Your task to perform on an android device: Show me popular games on the Play Store Image 0: 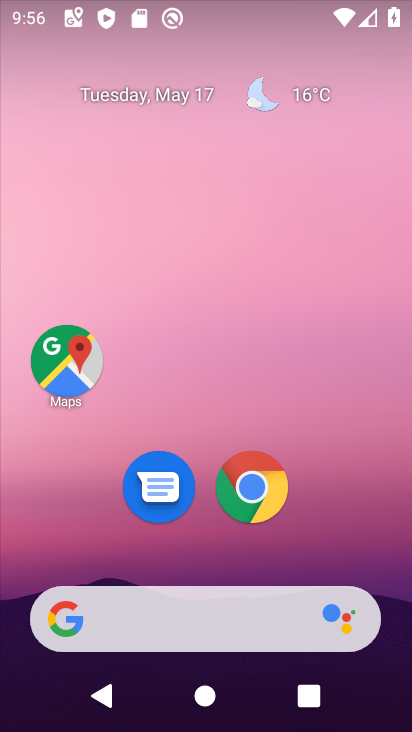
Step 0: drag from (207, 560) to (222, 77)
Your task to perform on an android device: Show me popular games on the Play Store Image 1: 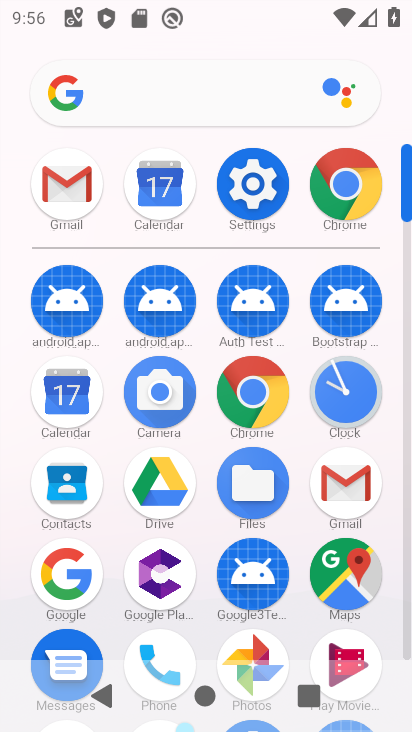
Step 1: drag from (192, 574) to (189, 329)
Your task to perform on an android device: Show me popular games on the Play Store Image 2: 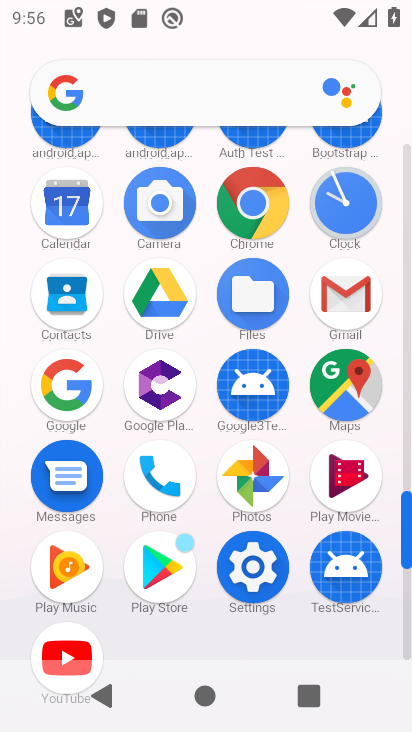
Step 2: click (167, 592)
Your task to perform on an android device: Show me popular games on the Play Store Image 3: 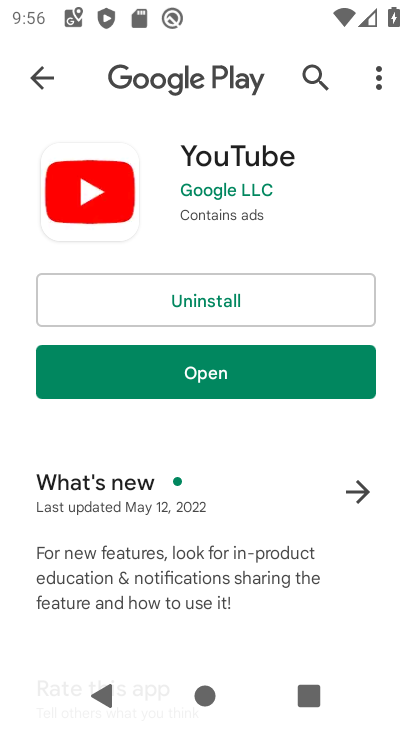
Step 3: click (42, 75)
Your task to perform on an android device: Show me popular games on the Play Store Image 4: 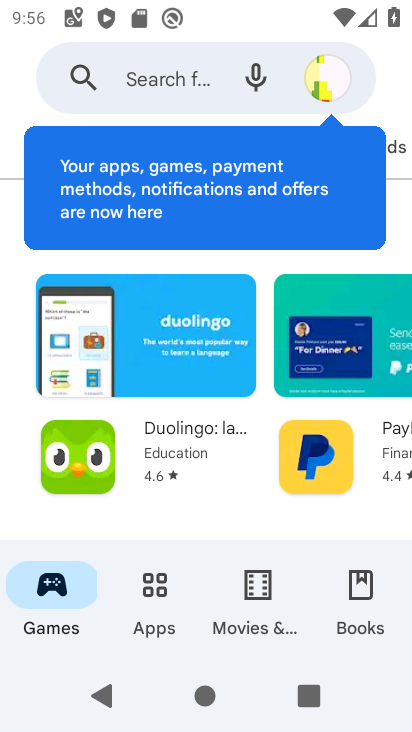
Step 4: drag from (394, 148) to (350, 147)
Your task to perform on an android device: Show me popular games on the Play Store Image 5: 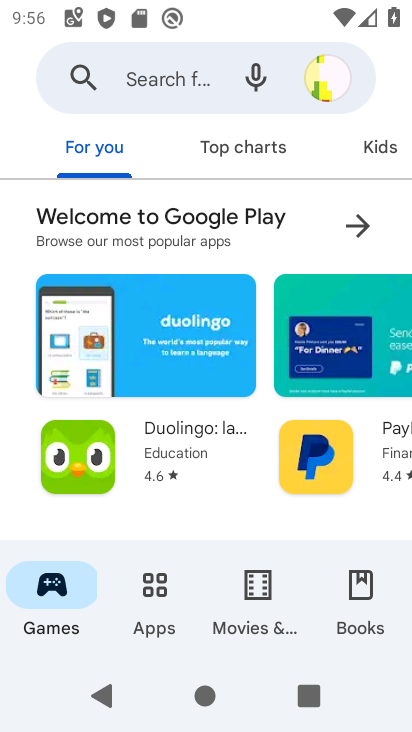
Step 5: click (249, 151)
Your task to perform on an android device: Show me popular games on the Play Store Image 6: 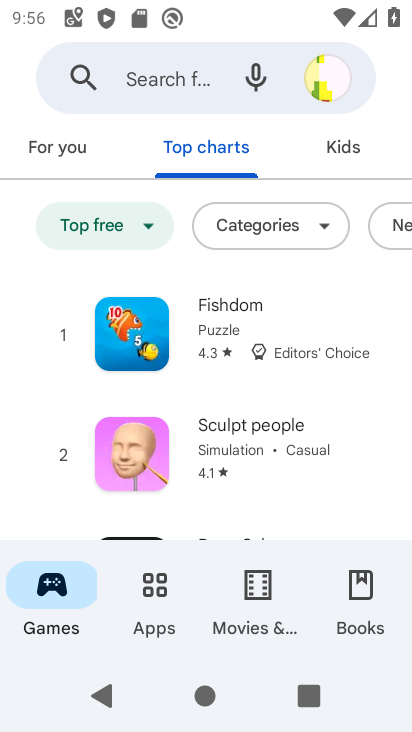
Step 6: task complete